Your task to perform on an android device: choose inbox layout in the gmail app Image 0: 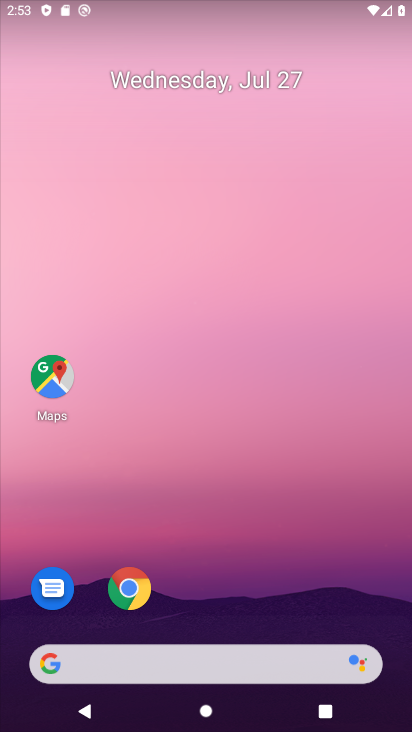
Step 0: drag from (321, 618) to (265, 196)
Your task to perform on an android device: choose inbox layout in the gmail app Image 1: 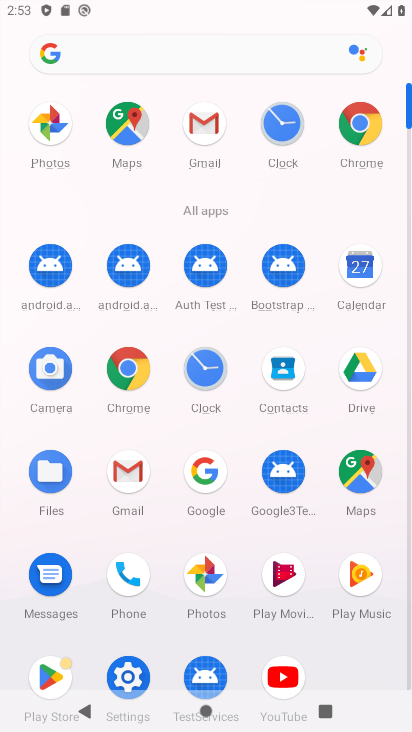
Step 1: click (214, 128)
Your task to perform on an android device: choose inbox layout in the gmail app Image 2: 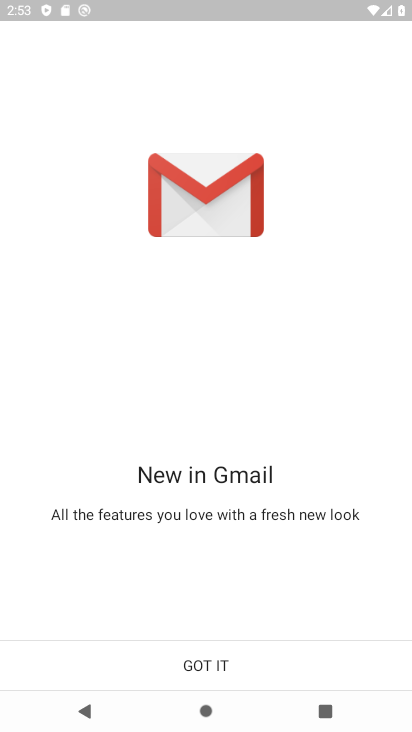
Step 2: click (207, 656)
Your task to perform on an android device: choose inbox layout in the gmail app Image 3: 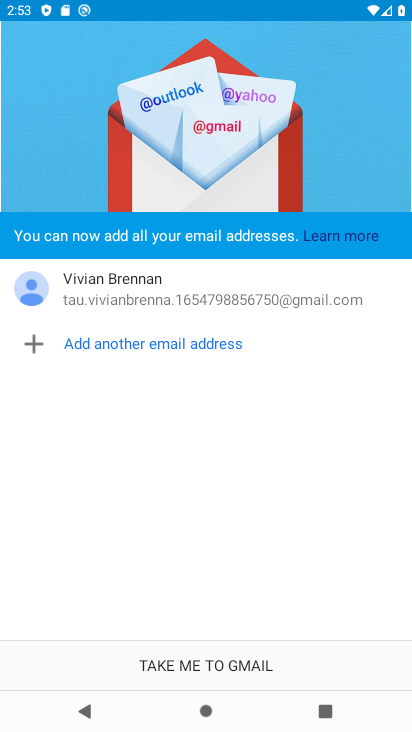
Step 3: click (207, 656)
Your task to perform on an android device: choose inbox layout in the gmail app Image 4: 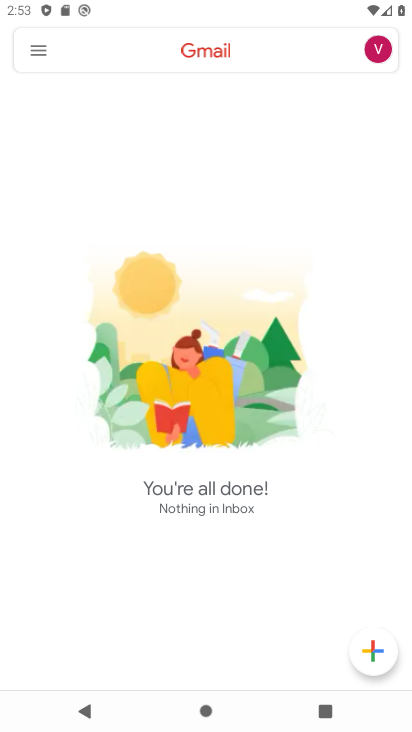
Step 4: click (32, 59)
Your task to perform on an android device: choose inbox layout in the gmail app Image 5: 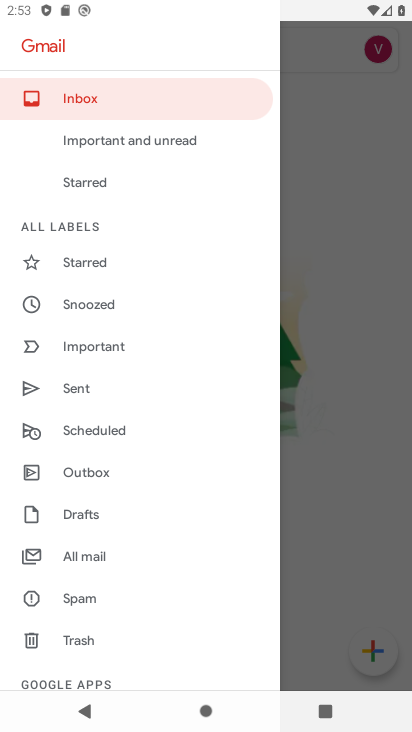
Step 5: drag from (95, 644) to (82, 248)
Your task to perform on an android device: choose inbox layout in the gmail app Image 6: 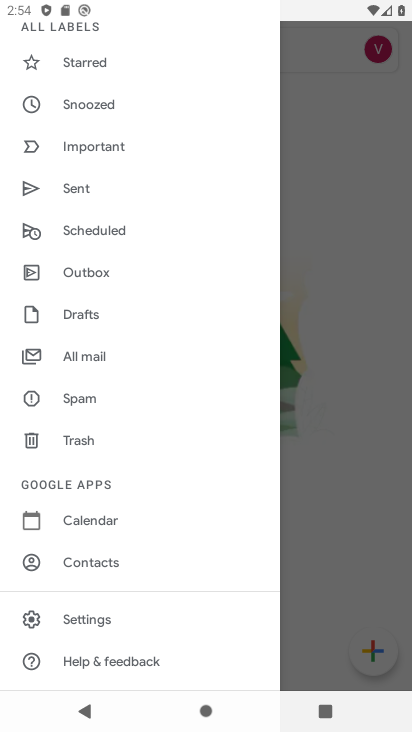
Step 6: click (111, 623)
Your task to perform on an android device: choose inbox layout in the gmail app Image 7: 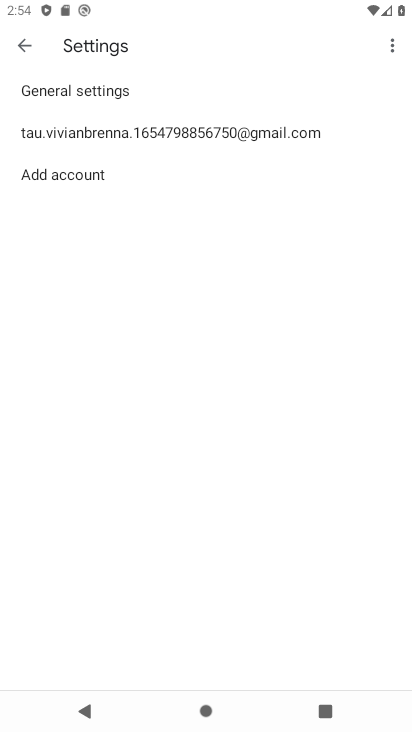
Step 7: click (259, 129)
Your task to perform on an android device: choose inbox layout in the gmail app Image 8: 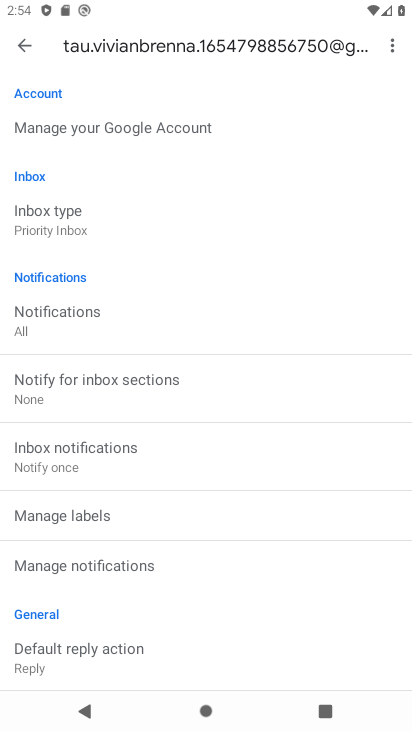
Step 8: click (130, 217)
Your task to perform on an android device: choose inbox layout in the gmail app Image 9: 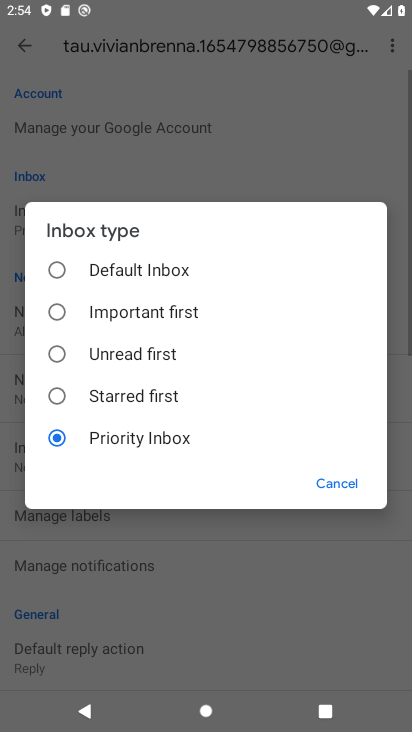
Step 9: click (136, 307)
Your task to perform on an android device: choose inbox layout in the gmail app Image 10: 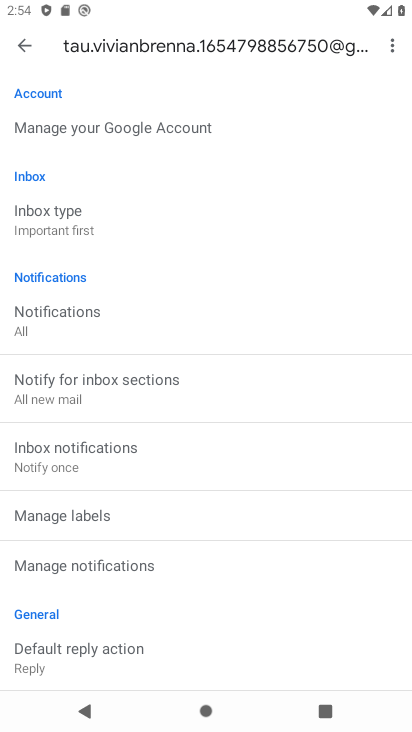
Step 10: task complete